Your task to perform on an android device: choose inbox layout in the gmail app Image 0: 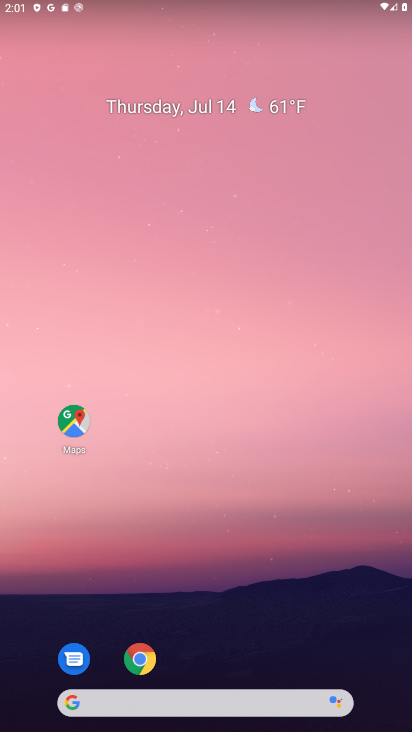
Step 0: drag from (206, 682) to (107, 8)
Your task to perform on an android device: choose inbox layout in the gmail app Image 1: 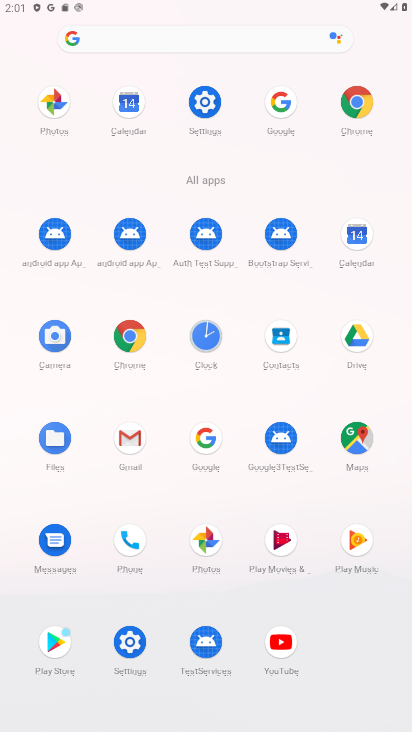
Step 1: click (112, 444)
Your task to perform on an android device: choose inbox layout in the gmail app Image 2: 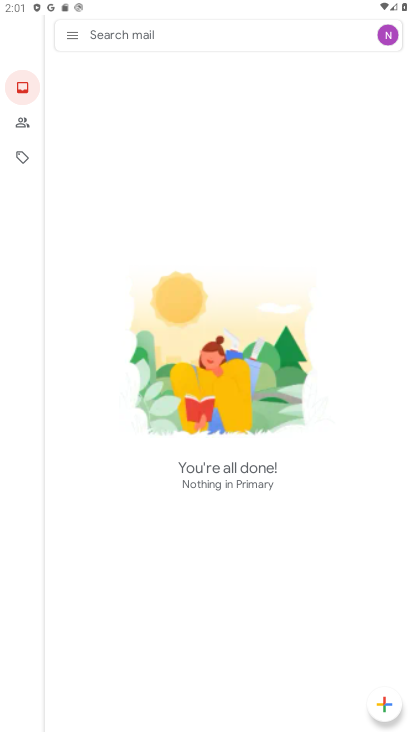
Step 2: click (60, 41)
Your task to perform on an android device: choose inbox layout in the gmail app Image 3: 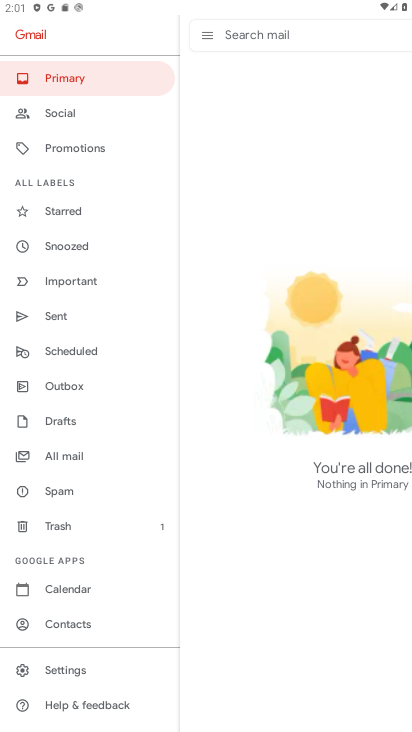
Step 3: click (71, 672)
Your task to perform on an android device: choose inbox layout in the gmail app Image 4: 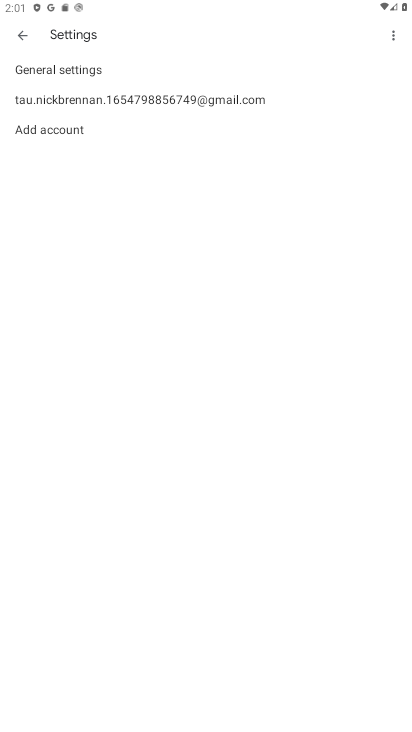
Step 4: click (15, 36)
Your task to perform on an android device: choose inbox layout in the gmail app Image 5: 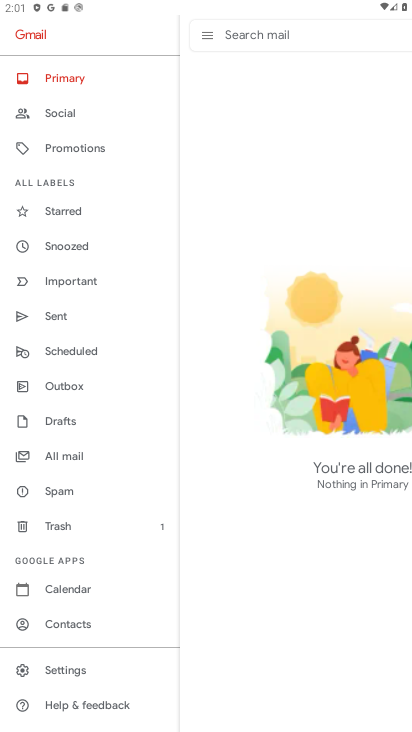
Step 5: click (84, 674)
Your task to perform on an android device: choose inbox layout in the gmail app Image 6: 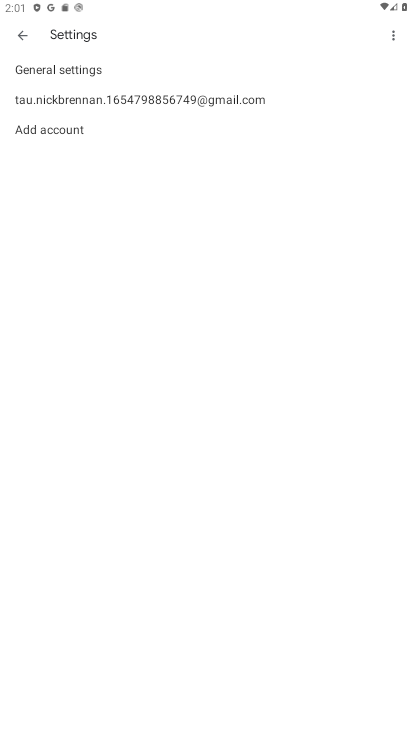
Step 6: click (30, 92)
Your task to perform on an android device: choose inbox layout in the gmail app Image 7: 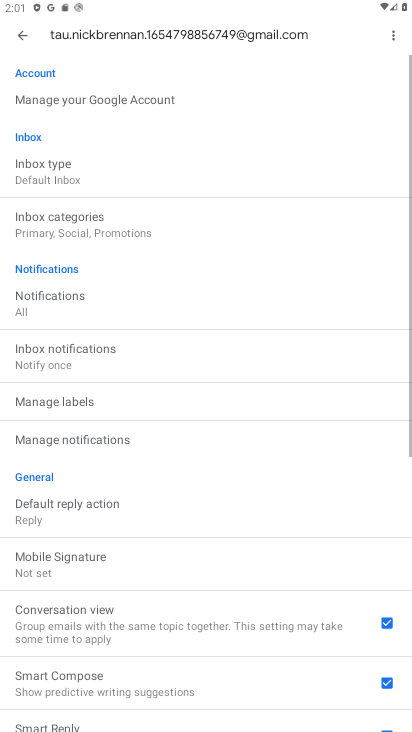
Step 7: click (35, 157)
Your task to perform on an android device: choose inbox layout in the gmail app Image 8: 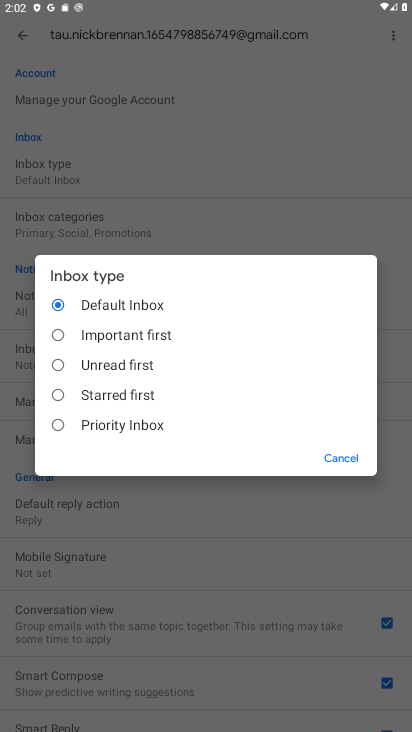
Step 8: click (123, 432)
Your task to perform on an android device: choose inbox layout in the gmail app Image 9: 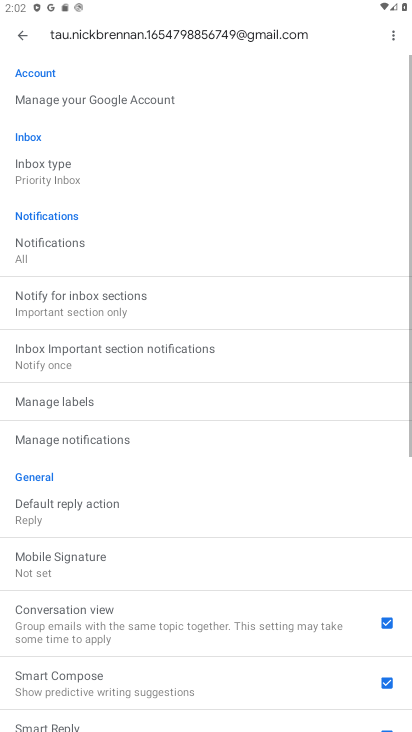
Step 9: click (23, 32)
Your task to perform on an android device: choose inbox layout in the gmail app Image 10: 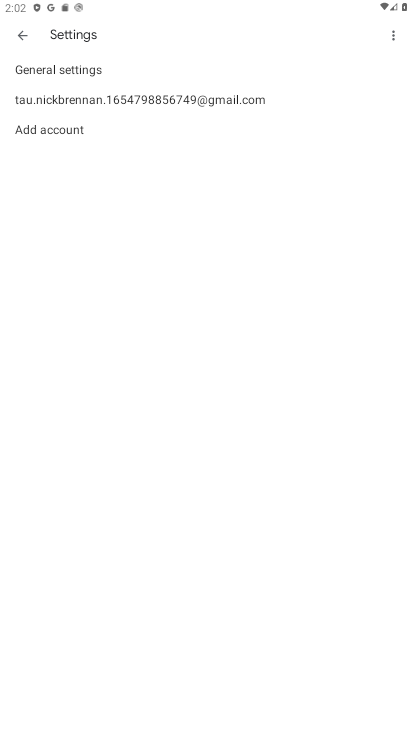
Step 10: click (23, 32)
Your task to perform on an android device: choose inbox layout in the gmail app Image 11: 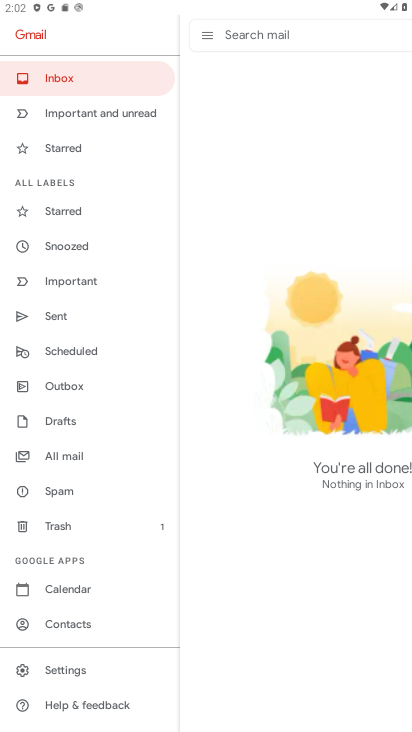
Step 11: click (56, 73)
Your task to perform on an android device: choose inbox layout in the gmail app Image 12: 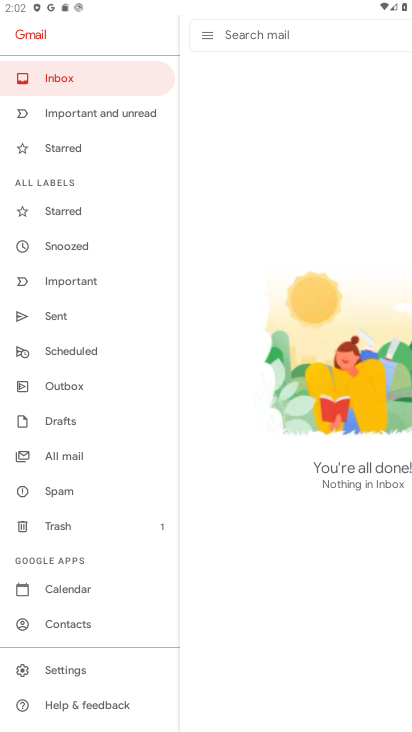
Step 12: task complete